Your task to perform on an android device: toggle sleep mode Image 0: 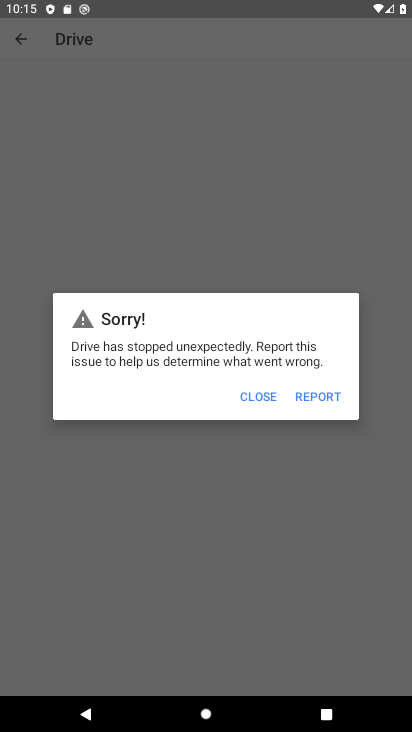
Step 0: press home button
Your task to perform on an android device: toggle sleep mode Image 1: 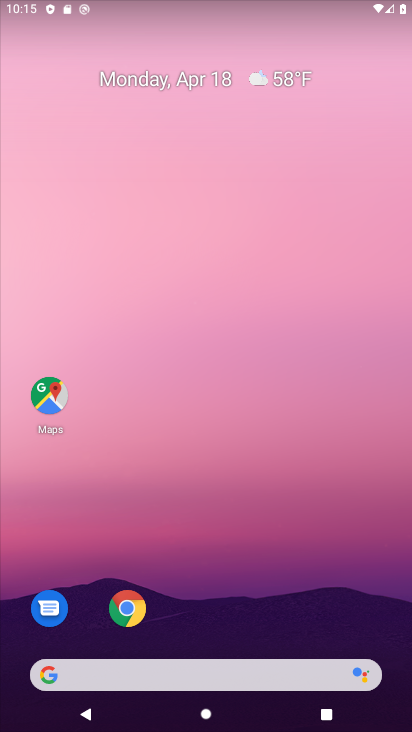
Step 1: drag from (368, 563) to (278, 193)
Your task to perform on an android device: toggle sleep mode Image 2: 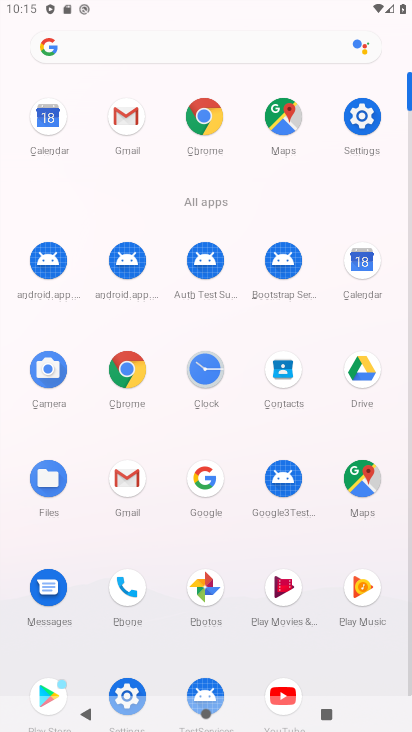
Step 2: click (362, 127)
Your task to perform on an android device: toggle sleep mode Image 3: 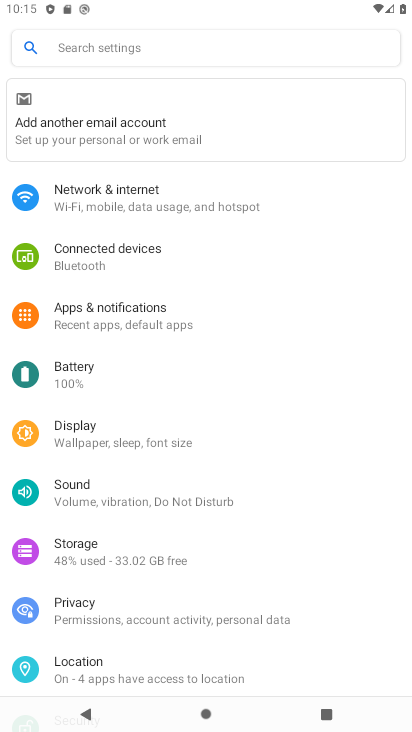
Step 3: click (278, 434)
Your task to perform on an android device: toggle sleep mode Image 4: 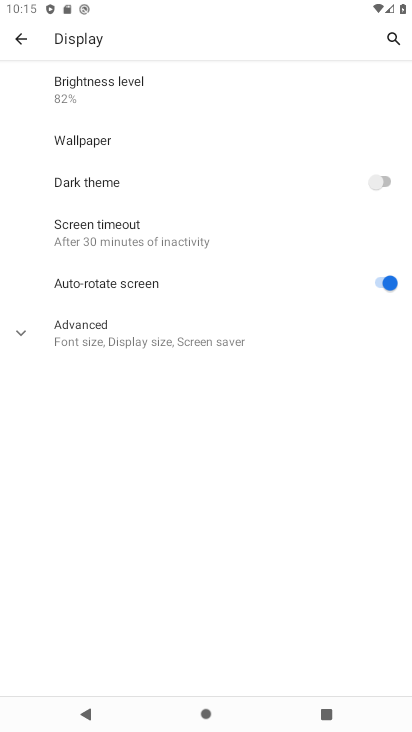
Step 4: click (244, 348)
Your task to perform on an android device: toggle sleep mode Image 5: 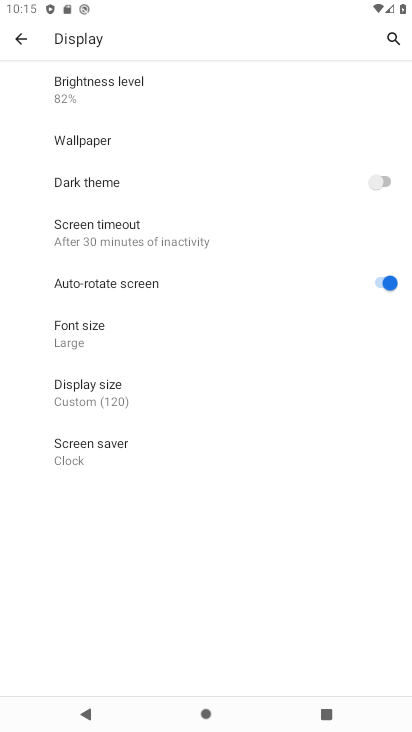
Step 5: task complete